Your task to perform on an android device: change alarm snooze length Image 0: 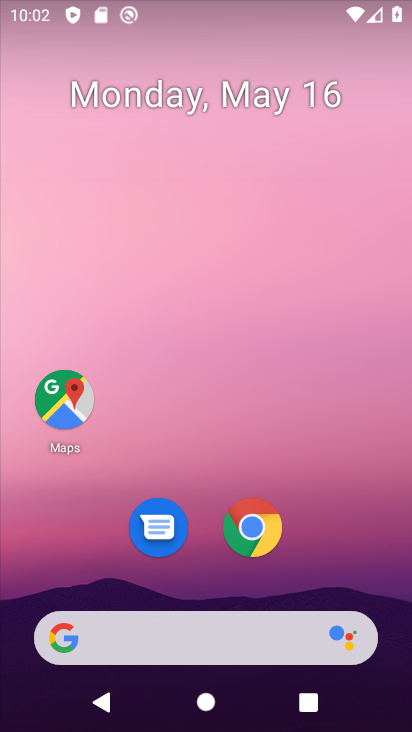
Step 0: drag from (316, 573) to (312, 52)
Your task to perform on an android device: change alarm snooze length Image 1: 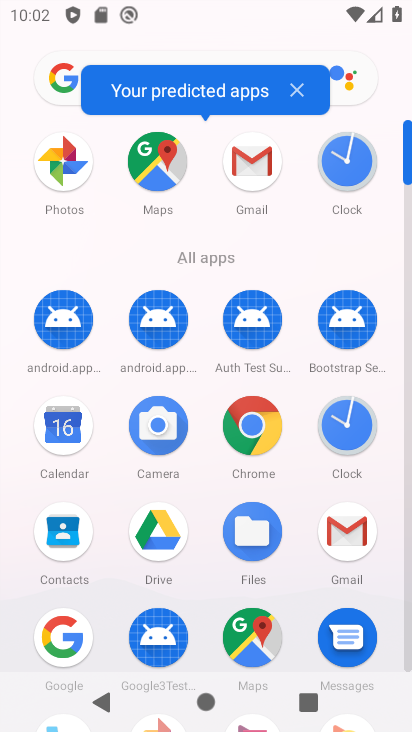
Step 1: click (358, 454)
Your task to perform on an android device: change alarm snooze length Image 2: 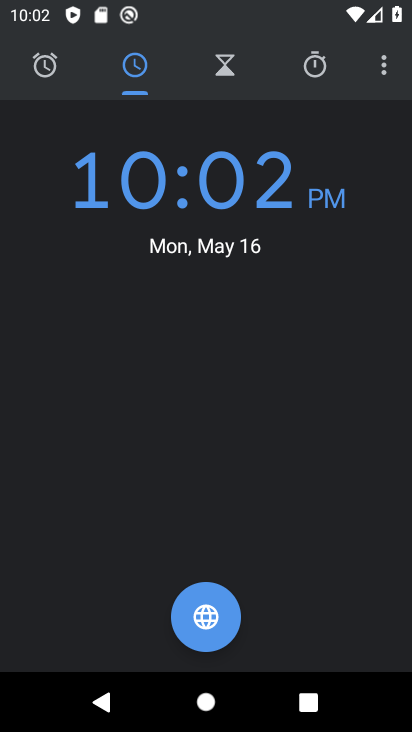
Step 2: click (384, 56)
Your task to perform on an android device: change alarm snooze length Image 3: 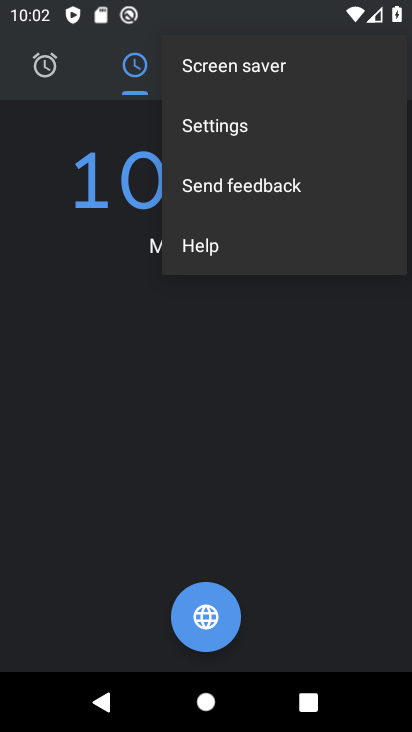
Step 3: click (240, 139)
Your task to perform on an android device: change alarm snooze length Image 4: 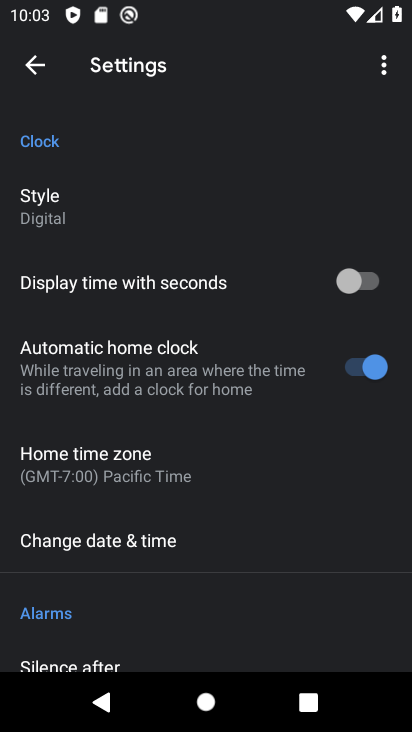
Step 4: drag from (110, 634) to (208, 287)
Your task to perform on an android device: change alarm snooze length Image 5: 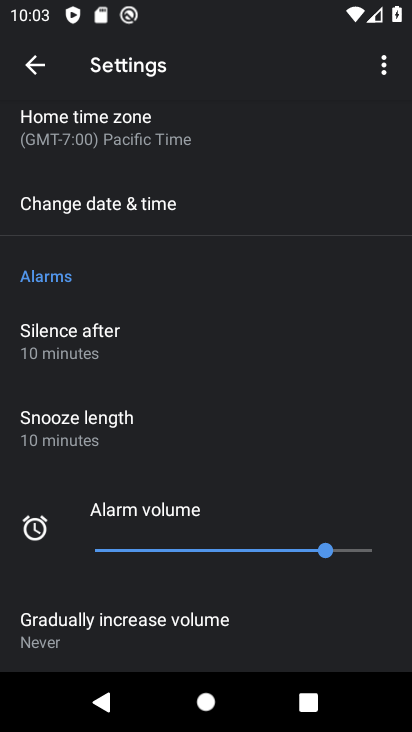
Step 5: drag from (206, 582) to (196, 542)
Your task to perform on an android device: change alarm snooze length Image 6: 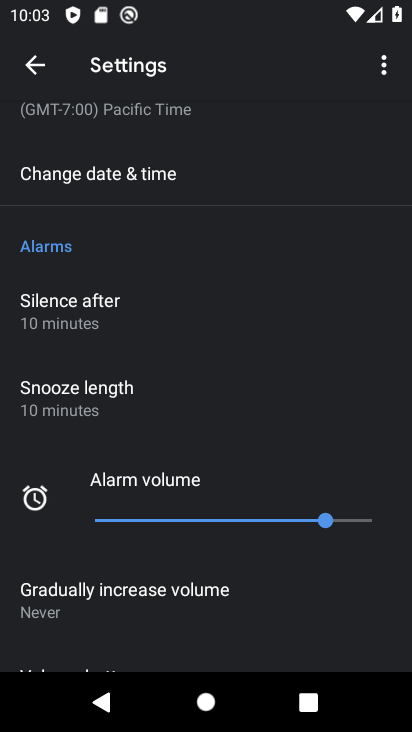
Step 6: click (34, 400)
Your task to perform on an android device: change alarm snooze length Image 7: 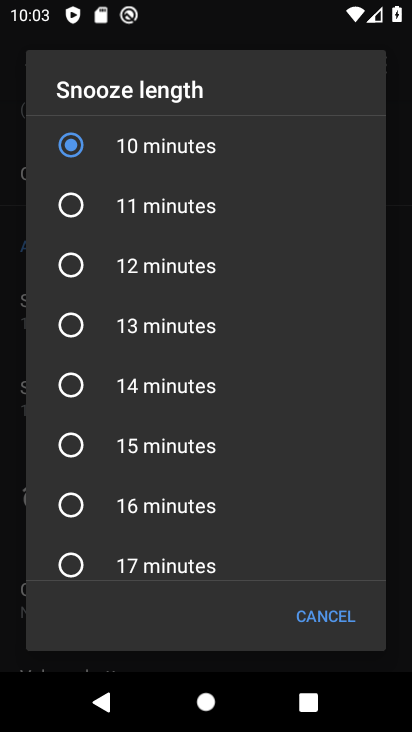
Step 7: click (64, 382)
Your task to perform on an android device: change alarm snooze length Image 8: 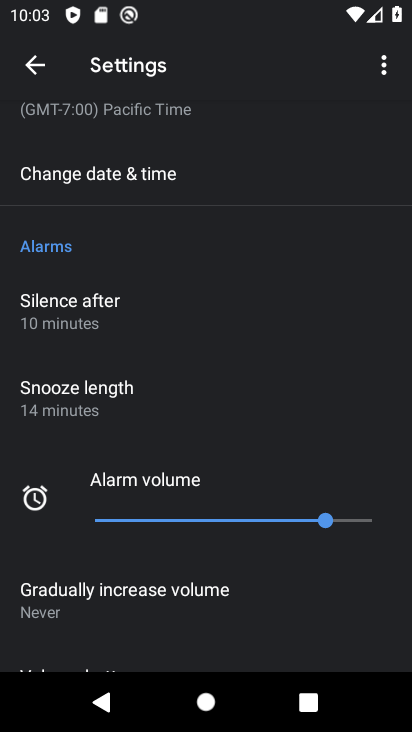
Step 8: task complete